Your task to perform on an android device: set an alarm Image 0: 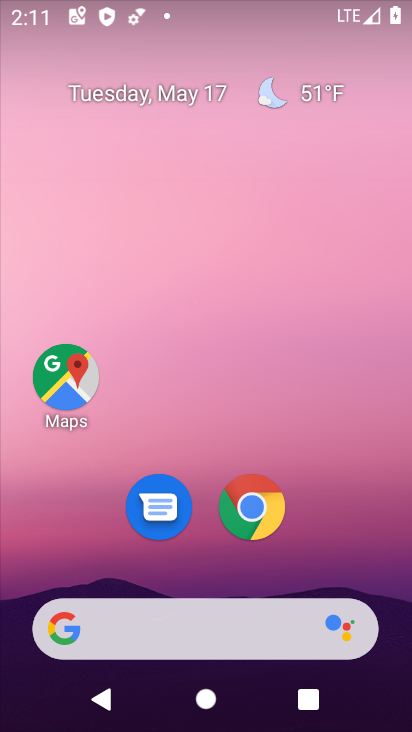
Step 0: drag from (328, 469) to (308, 43)
Your task to perform on an android device: set an alarm Image 1: 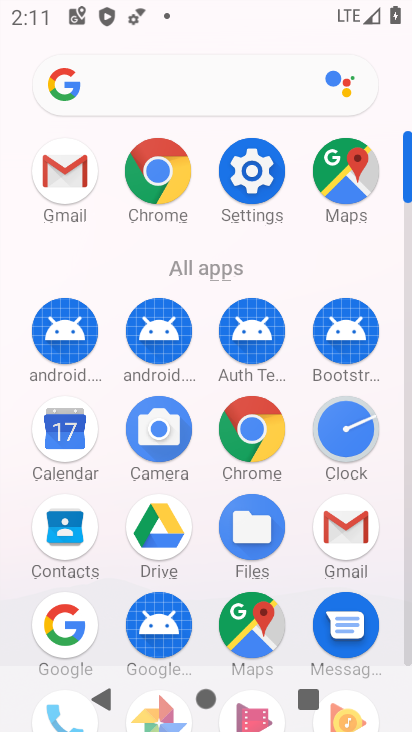
Step 1: click (335, 437)
Your task to perform on an android device: set an alarm Image 2: 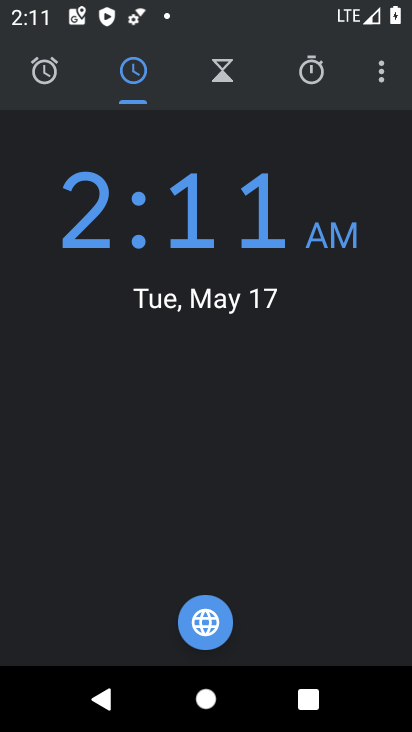
Step 2: click (58, 86)
Your task to perform on an android device: set an alarm Image 3: 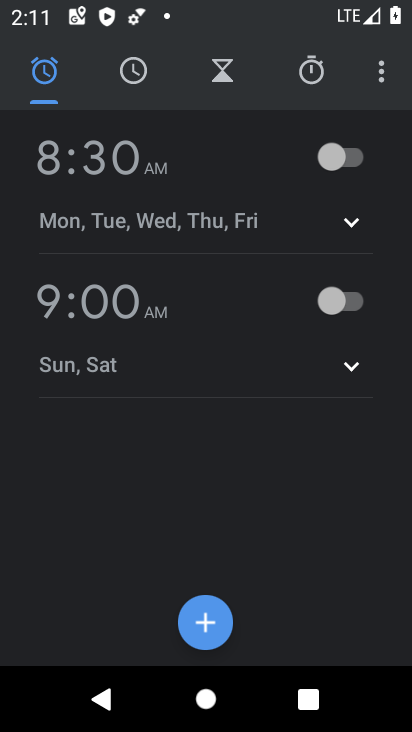
Step 3: click (220, 612)
Your task to perform on an android device: set an alarm Image 4: 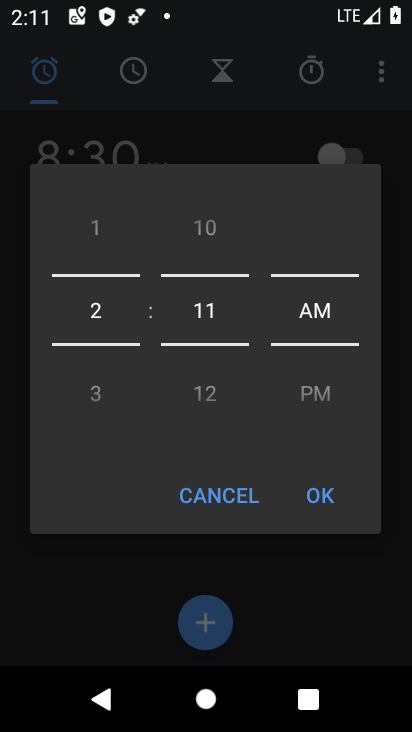
Step 4: click (311, 489)
Your task to perform on an android device: set an alarm Image 5: 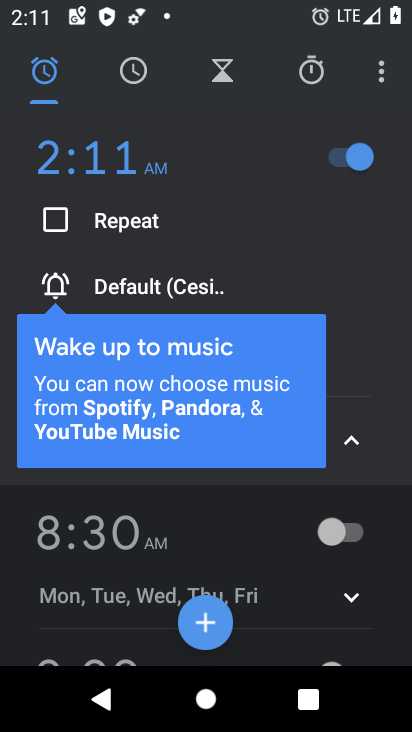
Step 5: click (359, 439)
Your task to perform on an android device: set an alarm Image 6: 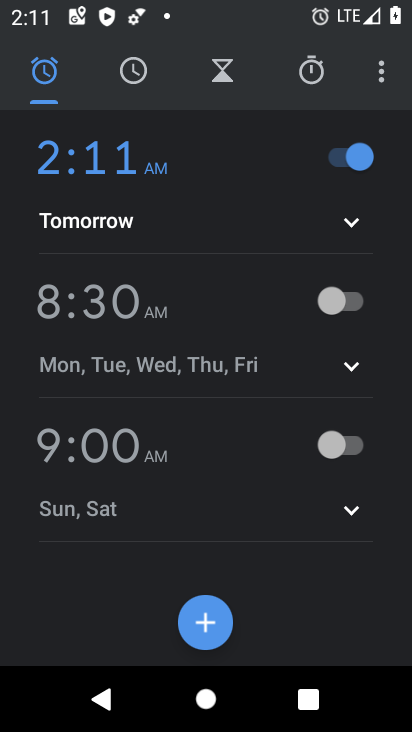
Step 6: task complete